Your task to perform on an android device: change the clock display to show seconds Image 0: 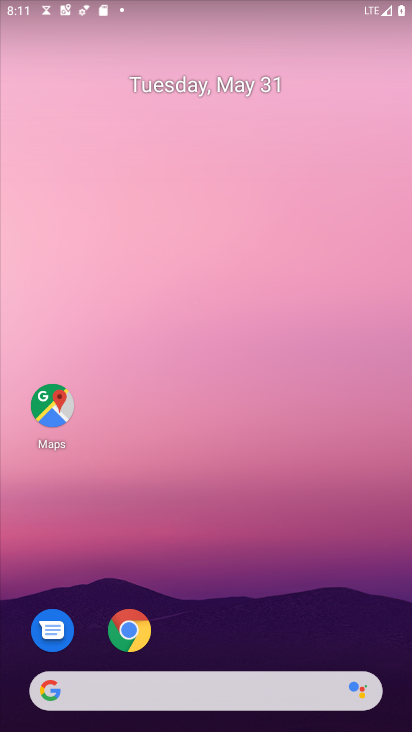
Step 0: drag from (256, 597) to (168, 149)
Your task to perform on an android device: change the clock display to show seconds Image 1: 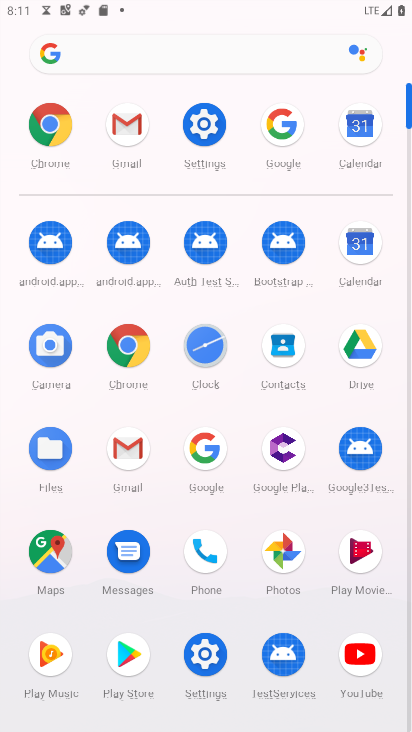
Step 1: click (206, 343)
Your task to perform on an android device: change the clock display to show seconds Image 2: 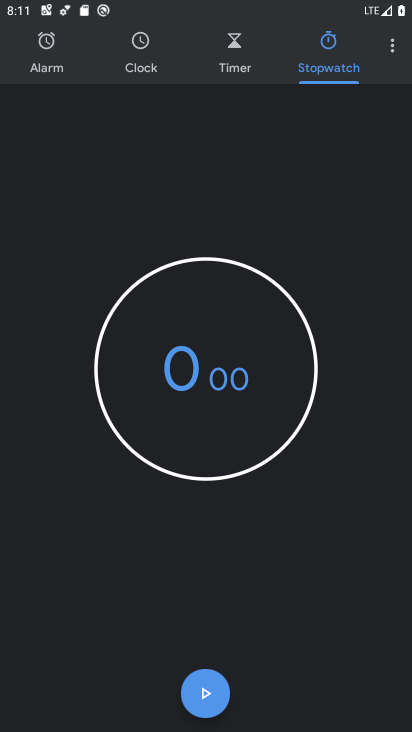
Step 2: click (392, 46)
Your task to perform on an android device: change the clock display to show seconds Image 3: 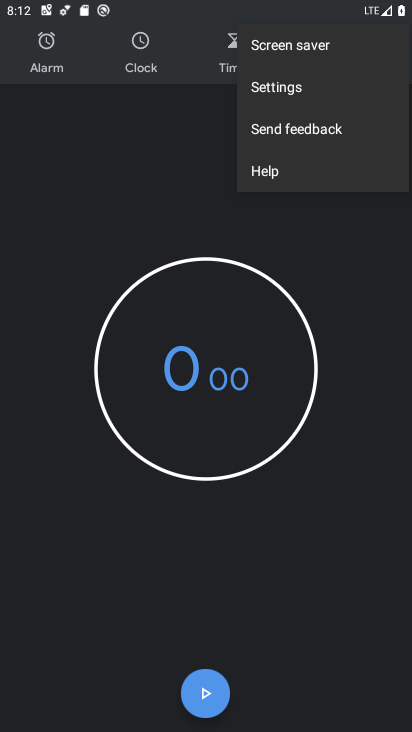
Step 3: click (293, 91)
Your task to perform on an android device: change the clock display to show seconds Image 4: 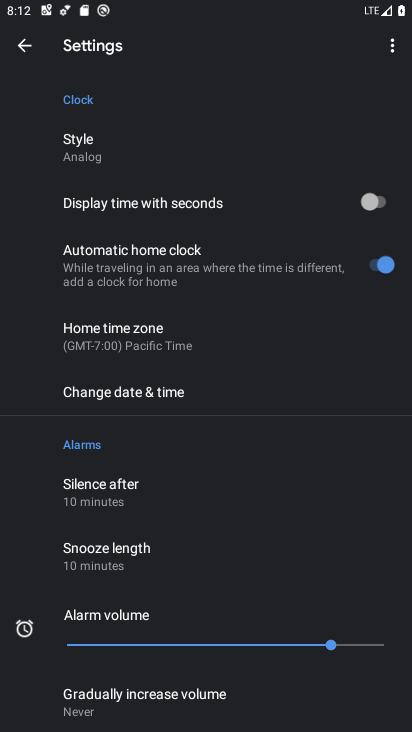
Step 4: click (373, 206)
Your task to perform on an android device: change the clock display to show seconds Image 5: 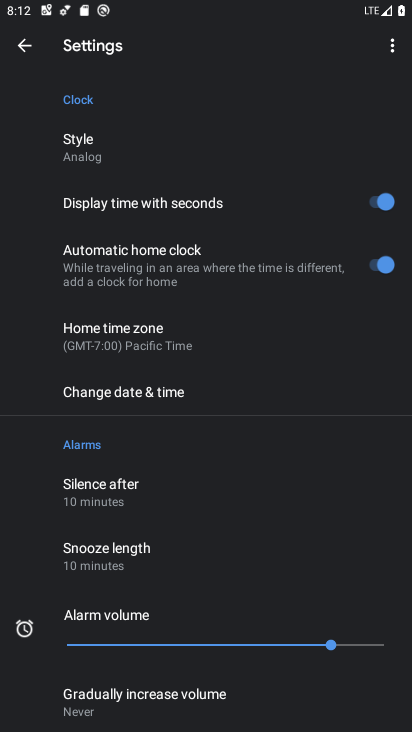
Step 5: task complete